Your task to perform on an android device: Go to ESPN.com Image 0: 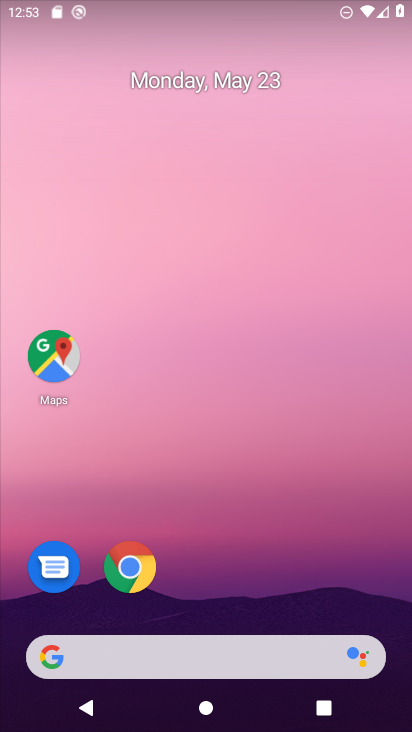
Step 0: click (227, 627)
Your task to perform on an android device: Go to ESPN.com Image 1: 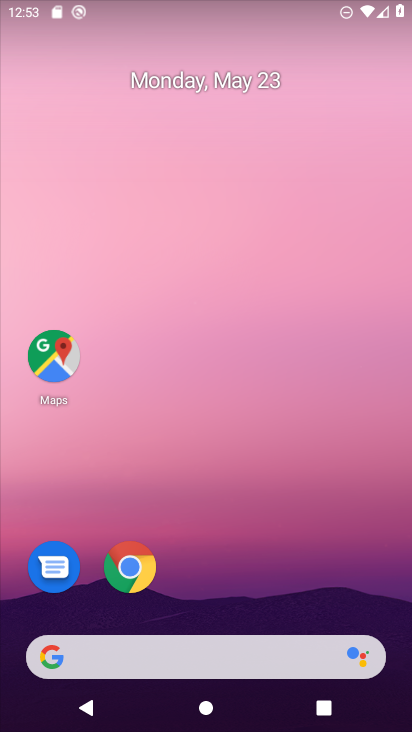
Step 1: drag from (227, 627) to (277, 162)
Your task to perform on an android device: Go to ESPN.com Image 2: 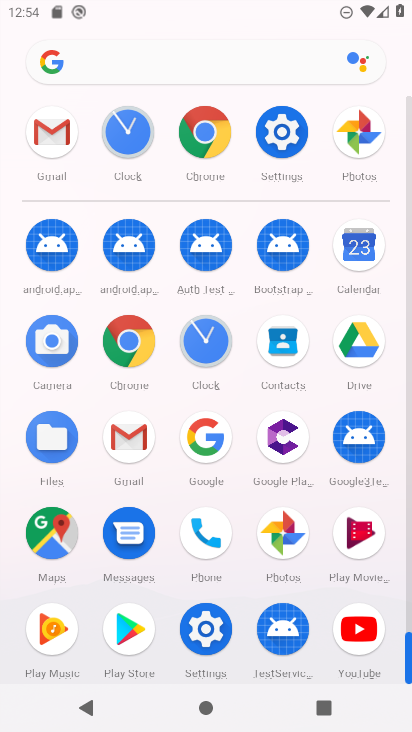
Step 2: click (198, 149)
Your task to perform on an android device: Go to ESPN.com Image 3: 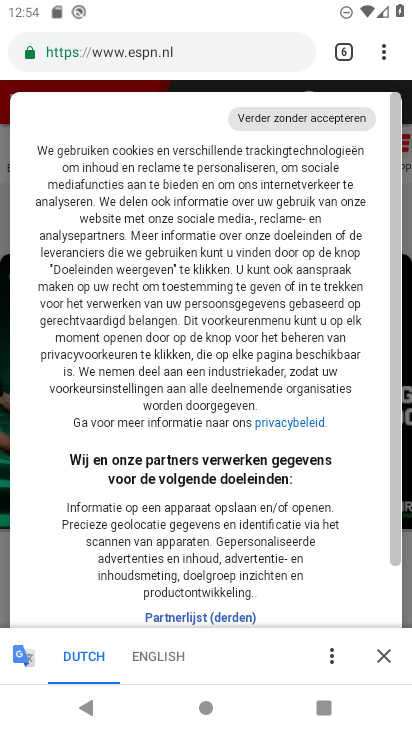
Step 3: task complete